Your task to perform on an android device: delete browsing data in the chrome app Image 0: 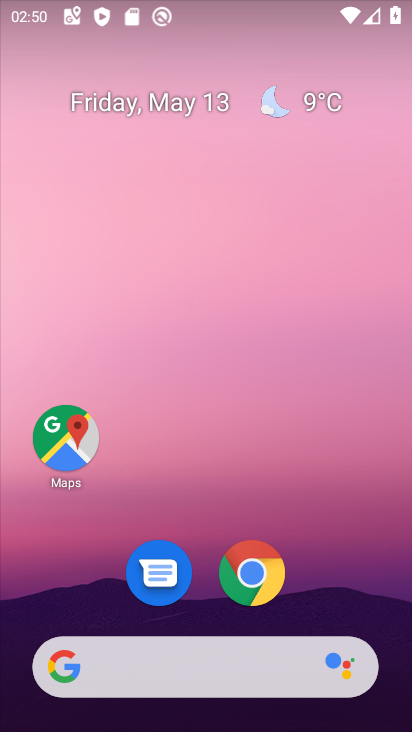
Step 0: click (250, 574)
Your task to perform on an android device: delete browsing data in the chrome app Image 1: 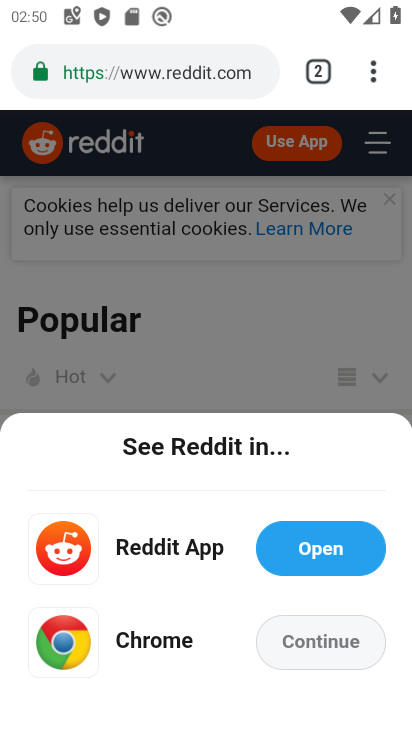
Step 1: click (375, 70)
Your task to perform on an android device: delete browsing data in the chrome app Image 2: 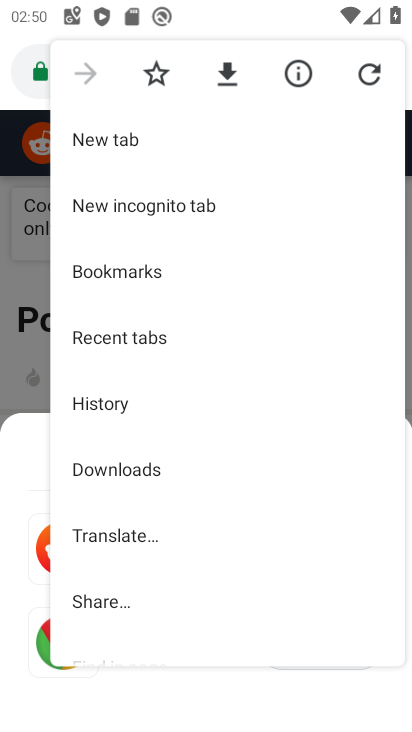
Step 2: drag from (140, 557) to (180, 477)
Your task to perform on an android device: delete browsing data in the chrome app Image 3: 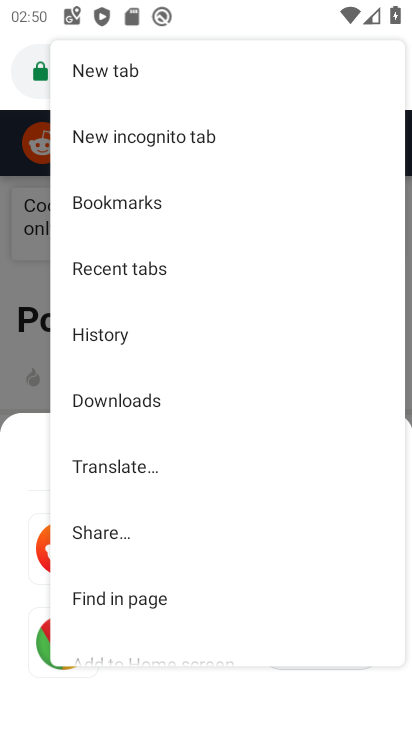
Step 3: drag from (132, 564) to (169, 482)
Your task to perform on an android device: delete browsing data in the chrome app Image 4: 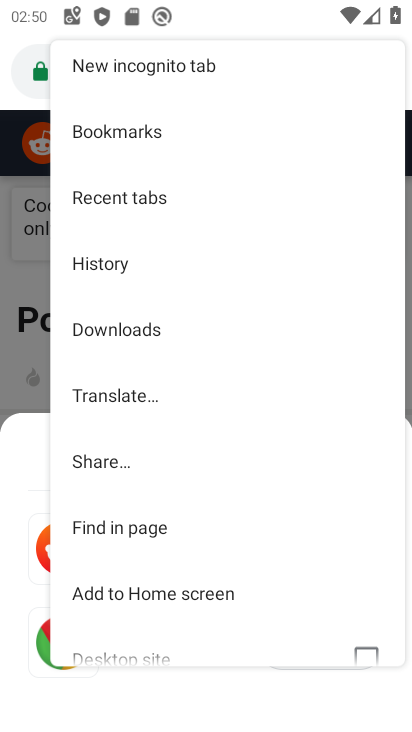
Step 4: drag from (126, 563) to (149, 472)
Your task to perform on an android device: delete browsing data in the chrome app Image 5: 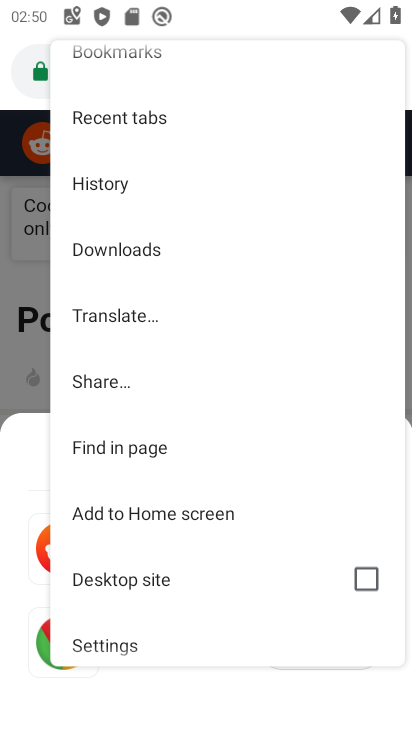
Step 5: drag from (113, 532) to (155, 450)
Your task to perform on an android device: delete browsing data in the chrome app Image 6: 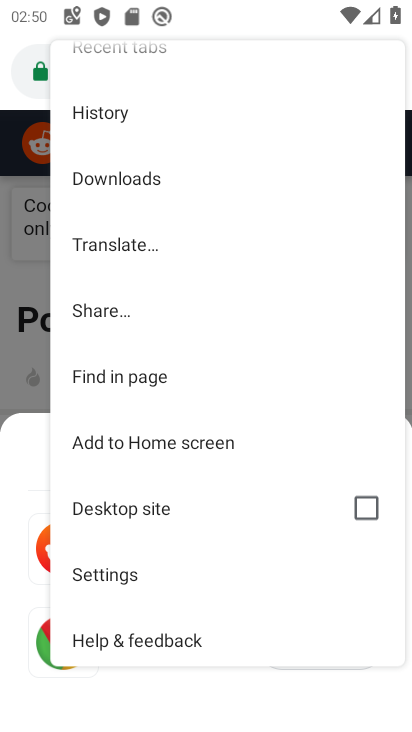
Step 6: click (117, 576)
Your task to perform on an android device: delete browsing data in the chrome app Image 7: 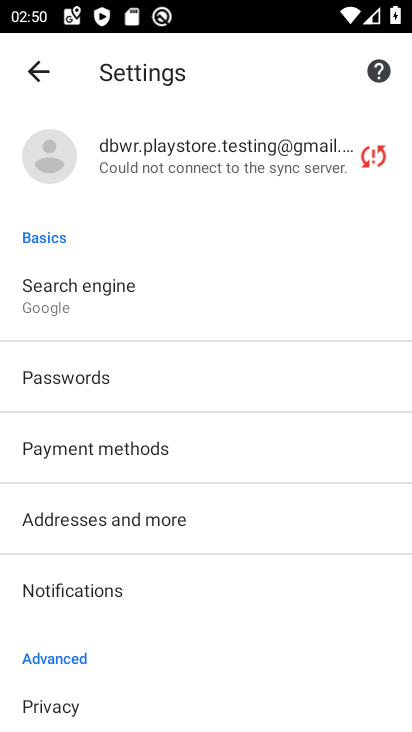
Step 7: drag from (113, 459) to (134, 387)
Your task to perform on an android device: delete browsing data in the chrome app Image 8: 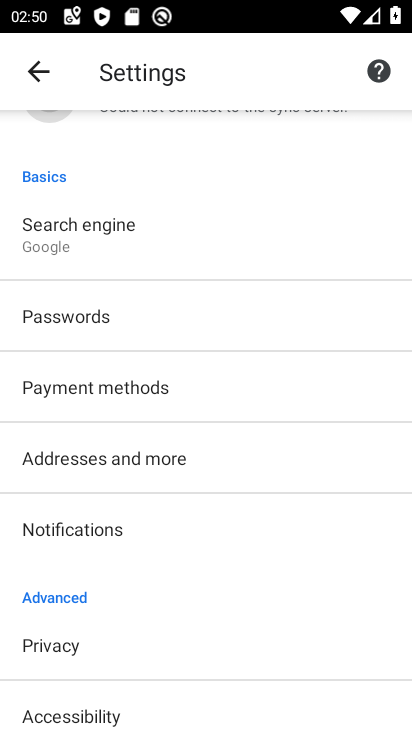
Step 8: drag from (112, 515) to (147, 421)
Your task to perform on an android device: delete browsing data in the chrome app Image 9: 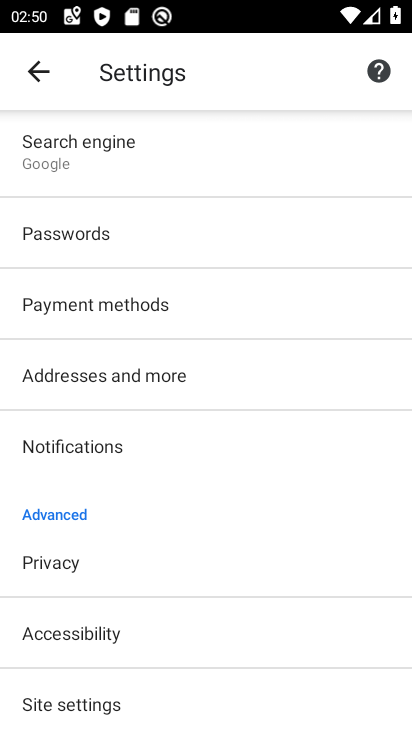
Step 9: drag from (108, 537) to (144, 450)
Your task to perform on an android device: delete browsing data in the chrome app Image 10: 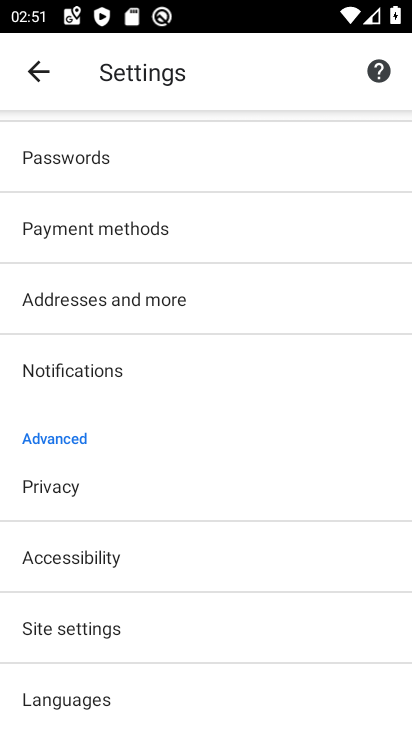
Step 10: click (71, 492)
Your task to perform on an android device: delete browsing data in the chrome app Image 11: 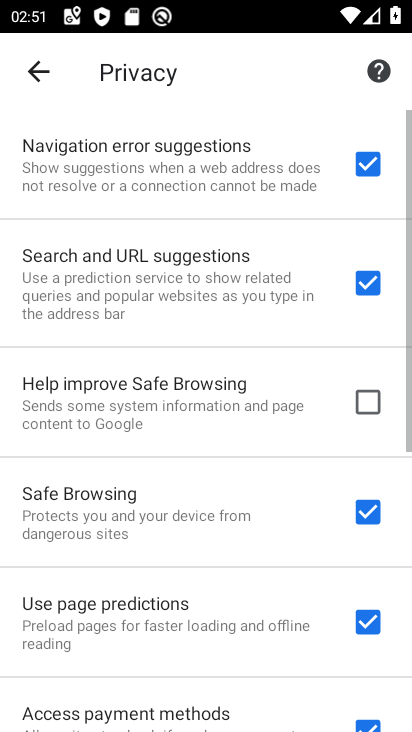
Step 11: drag from (175, 594) to (194, 410)
Your task to perform on an android device: delete browsing data in the chrome app Image 12: 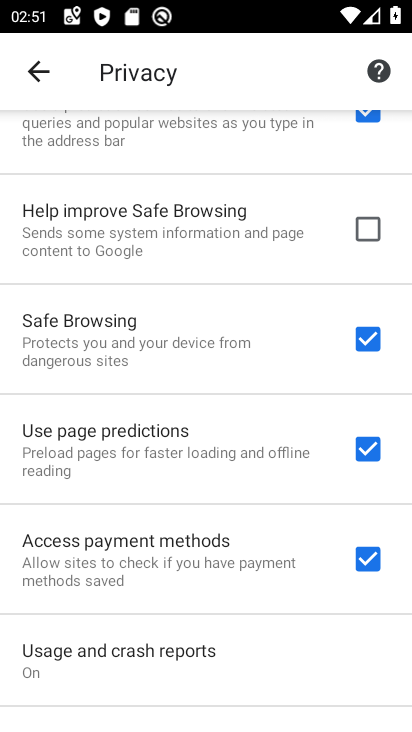
Step 12: drag from (159, 630) to (189, 493)
Your task to perform on an android device: delete browsing data in the chrome app Image 13: 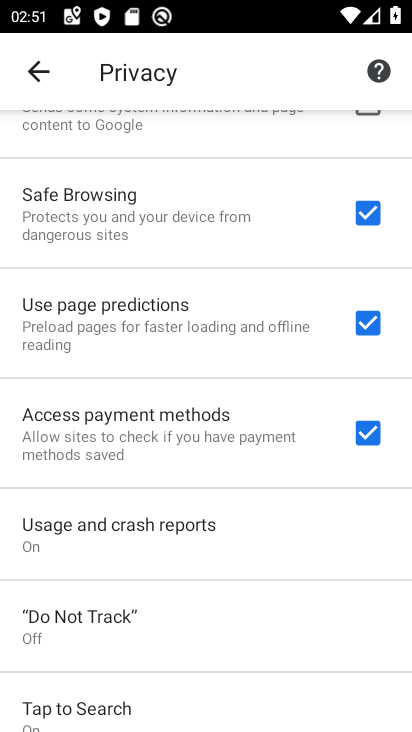
Step 13: drag from (158, 708) to (195, 532)
Your task to perform on an android device: delete browsing data in the chrome app Image 14: 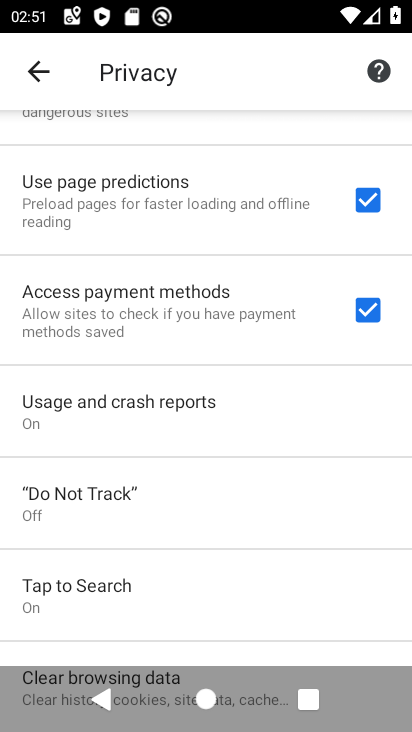
Step 14: drag from (151, 609) to (180, 442)
Your task to perform on an android device: delete browsing data in the chrome app Image 15: 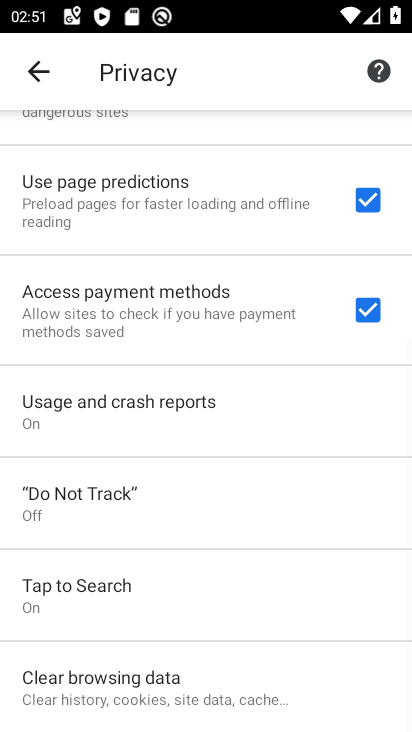
Step 15: click (124, 687)
Your task to perform on an android device: delete browsing data in the chrome app Image 16: 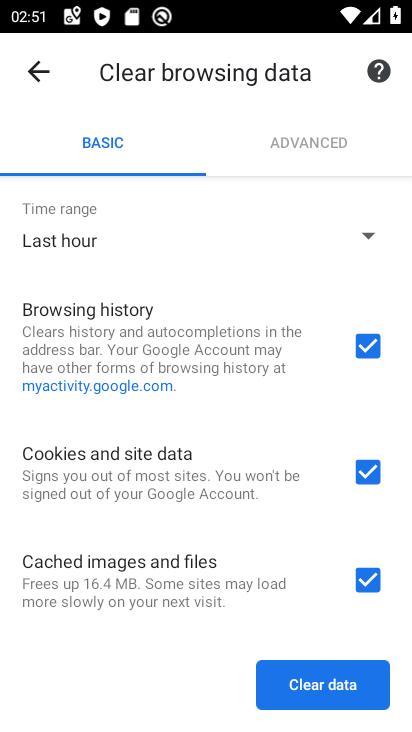
Step 16: click (337, 683)
Your task to perform on an android device: delete browsing data in the chrome app Image 17: 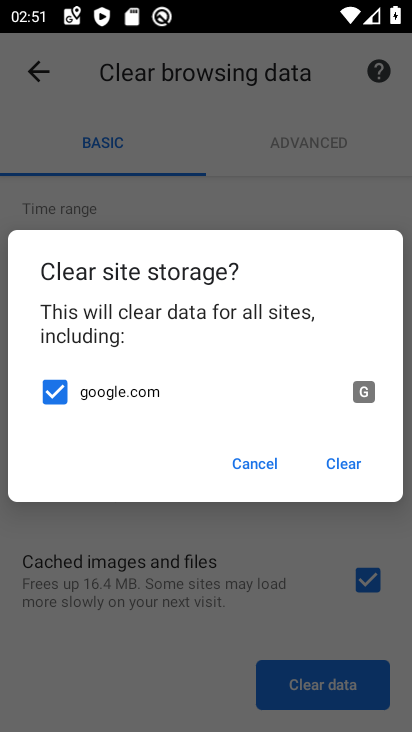
Step 17: click (335, 461)
Your task to perform on an android device: delete browsing data in the chrome app Image 18: 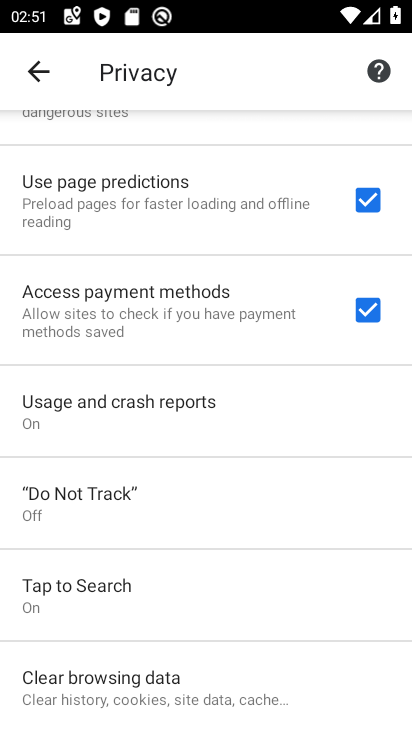
Step 18: task complete